Your task to perform on an android device: Set the phone to "Do not disturb". Image 0: 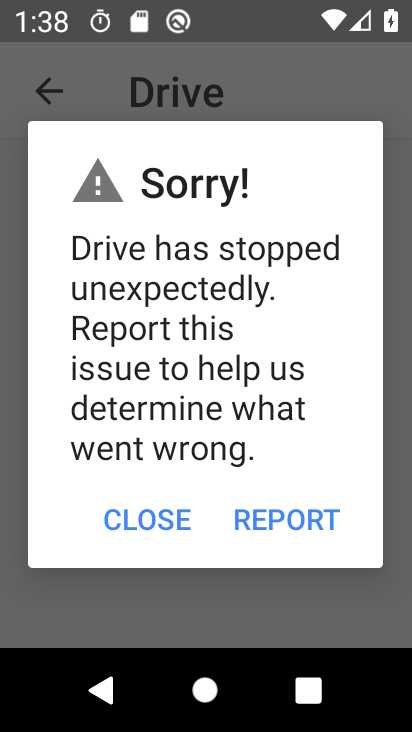
Step 0: press home button
Your task to perform on an android device: Set the phone to "Do not disturb". Image 1: 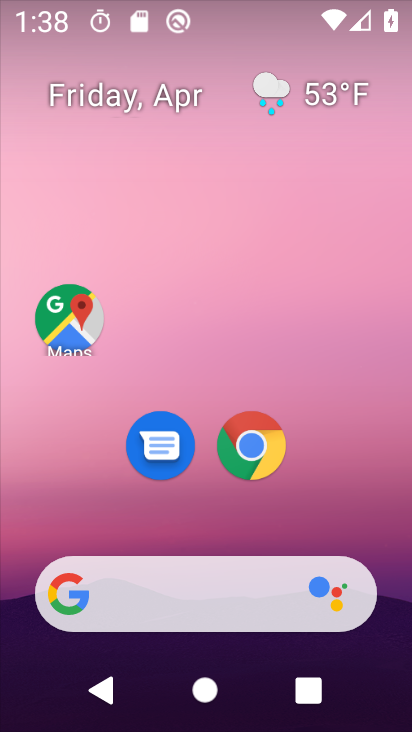
Step 1: drag from (351, 501) to (359, 172)
Your task to perform on an android device: Set the phone to "Do not disturb". Image 2: 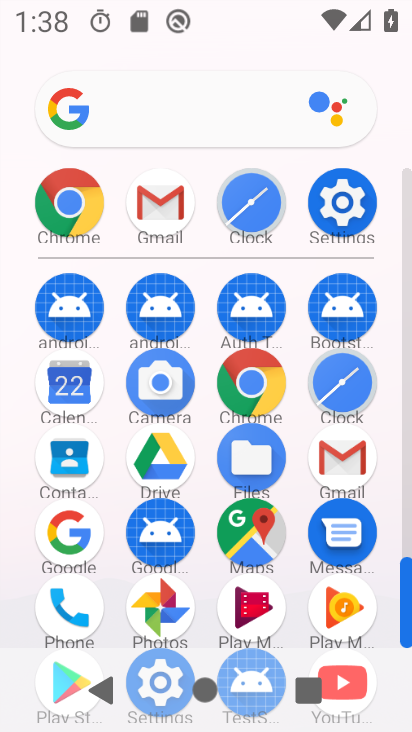
Step 2: click (335, 210)
Your task to perform on an android device: Set the phone to "Do not disturb". Image 3: 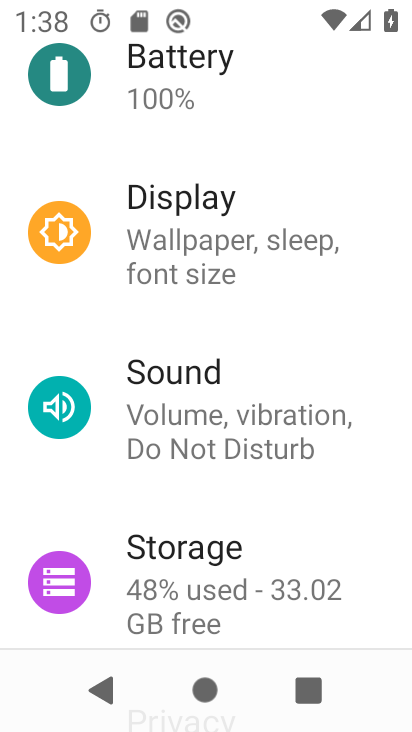
Step 3: drag from (363, 539) to (365, 384)
Your task to perform on an android device: Set the phone to "Do not disturb". Image 4: 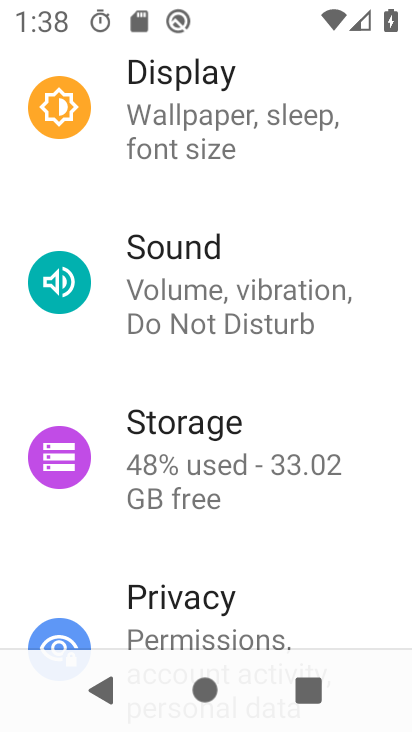
Step 4: drag from (361, 567) to (357, 411)
Your task to perform on an android device: Set the phone to "Do not disturb". Image 5: 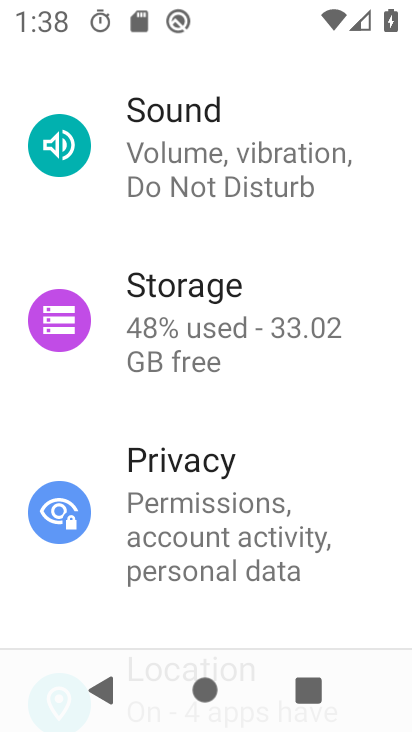
Step 5: drag from (359, 605) to (377, 425)
Your task to perform on an android device: Set the phone to "Do not disturb". Image 6: 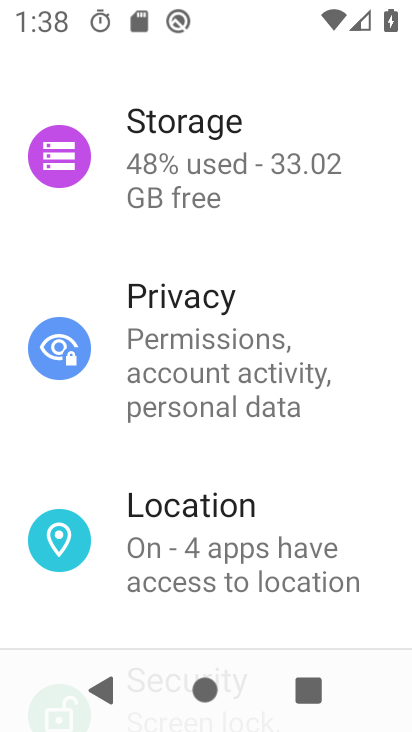
Step 6: drag from (372, 610) to (385, 430)
Your task to perform on an android device: Set the phone to "Do not disturb". Image 7: 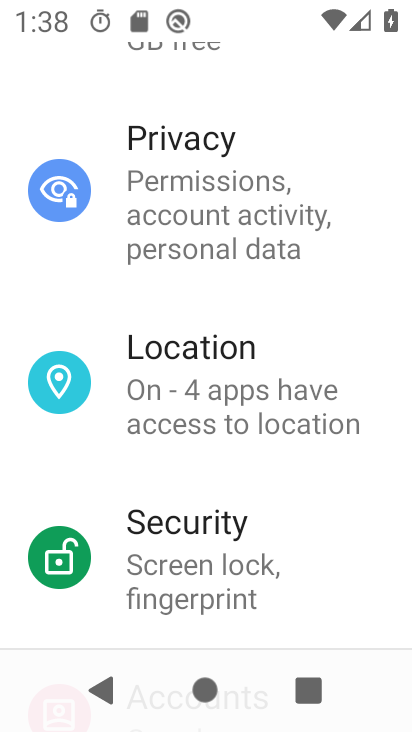
Step 7: drag from (347, 576) to (361, 430)
Your task to perform on an android device: Set the phone to "Do not disturb". Image 8: 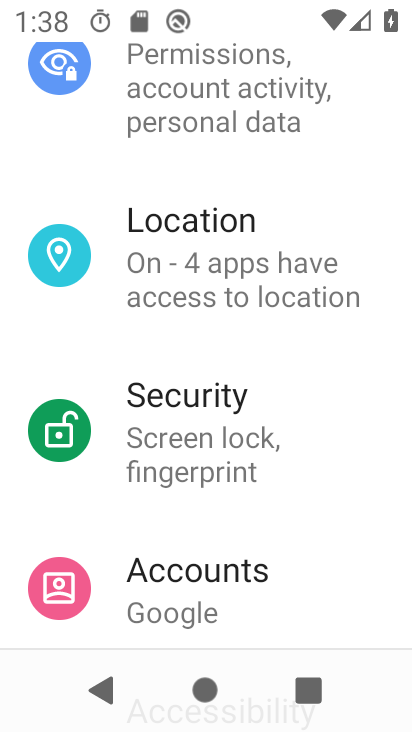
Step 8: drag from (344, 589) to (360, 365)
Your task to perform on an android device: Set the phone to "Do not disturb". Image 9: 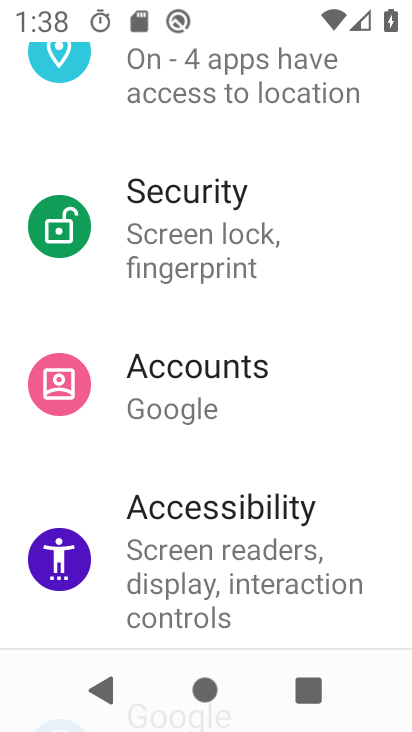
Step 9: drag from (365, 219) to (358, 374)
Your task to perform on an android device: Set the phone to "Do not disturb". Image 10: 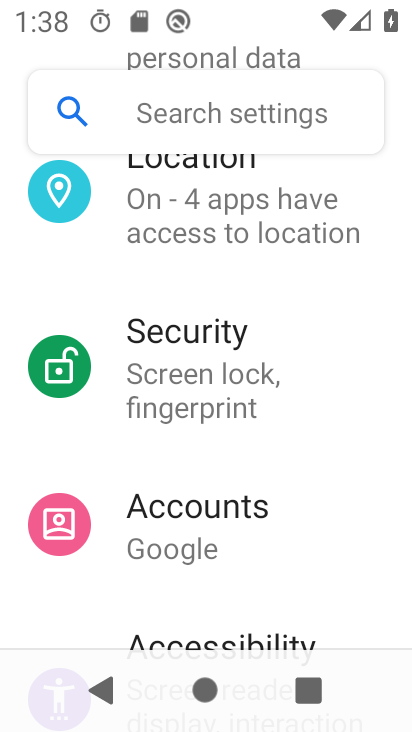
Step 10: drag from (352, 252) to (354, 421)
Your task to perform on an android device: Set the phone to "Do not disturb". Image 11: 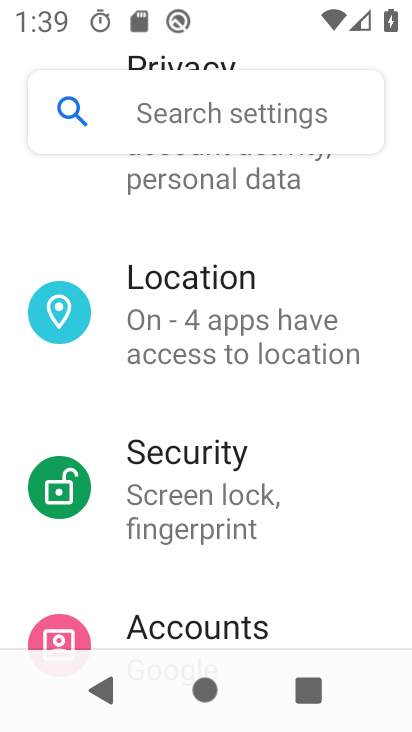
Step 11: drag from (382, 231) to (386, 386)
Your task to perform on an android device: Set the phone to "Do not disturb". Image 12: 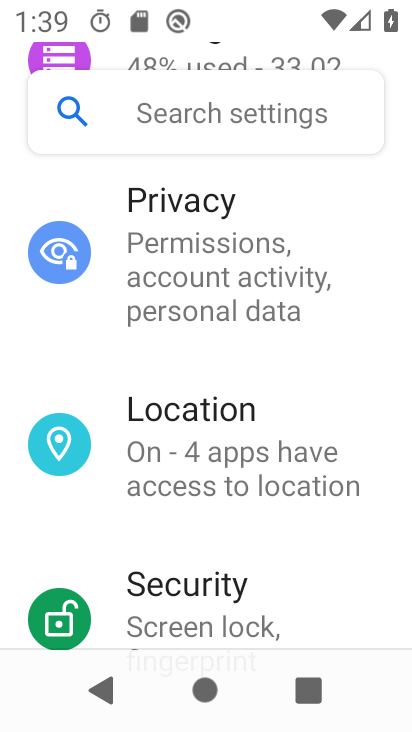
Step 12: drag from (364, 236) to (355, 397)
Your task to perform on an android device: Set the phone to "Do not disturb". Image 13: 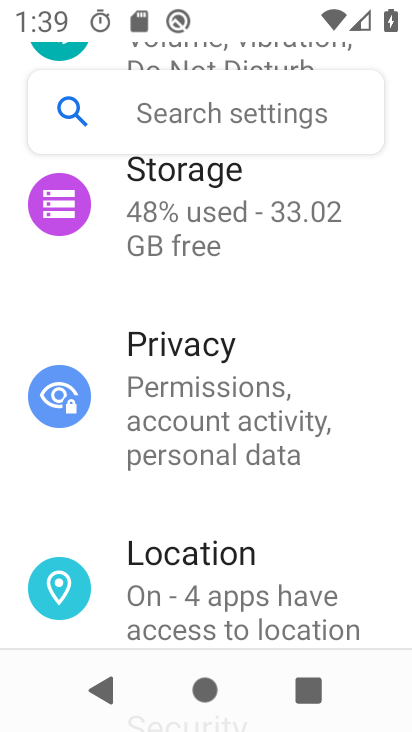
Step 13: drag from (361, 261) to (359, 389)
Your task to perform on an android device: Set the phone to "Do not disturb". Image 14: 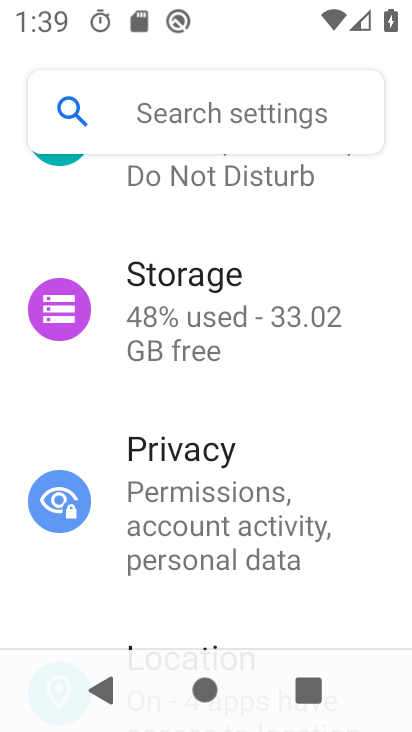
Step 14: drag from (371, 243) to (349, 420)
Your task to perform on an android device: Set the phone to "Do not disturb". Image 15: 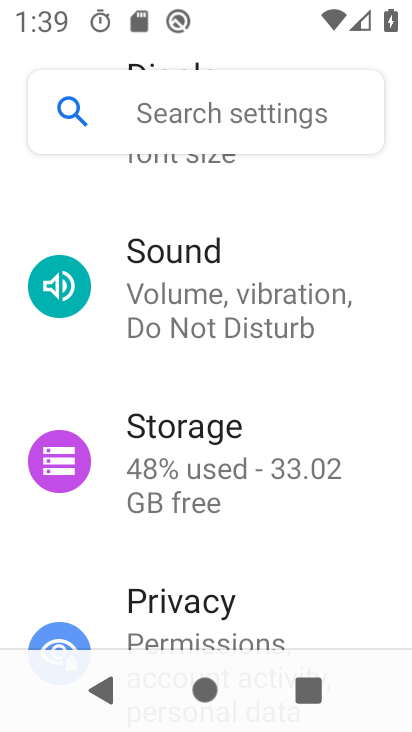
Step 15: click (274, 320)
Your task to perform on an android device: Set the phone to "Do not disturb". Image 16: 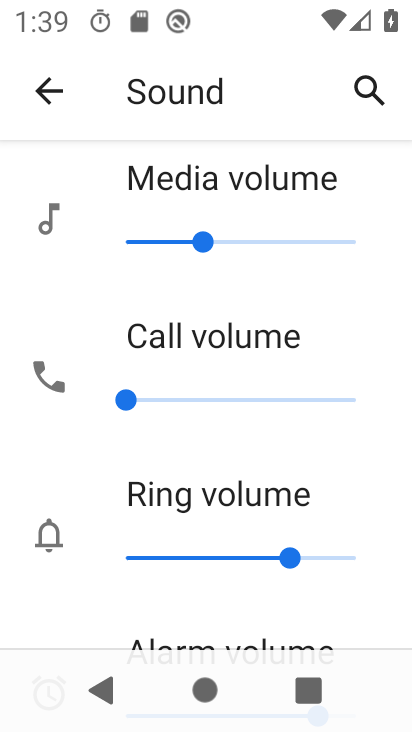
Step 16: drag from (345, 476) to (364, 315)
Your task to perform on an android device: Set the phone to "Do not disturb". Image 17: 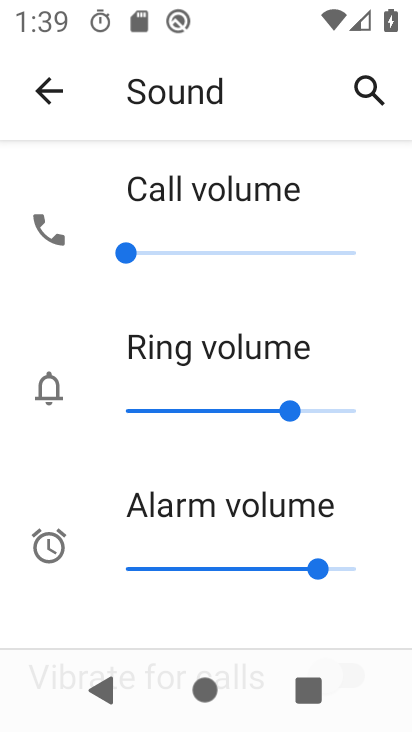
Step 17: drag from (358, 595) to (381, 351)
Your task to perform on an android device: Set the phone to "Do not disturb". Image 18: 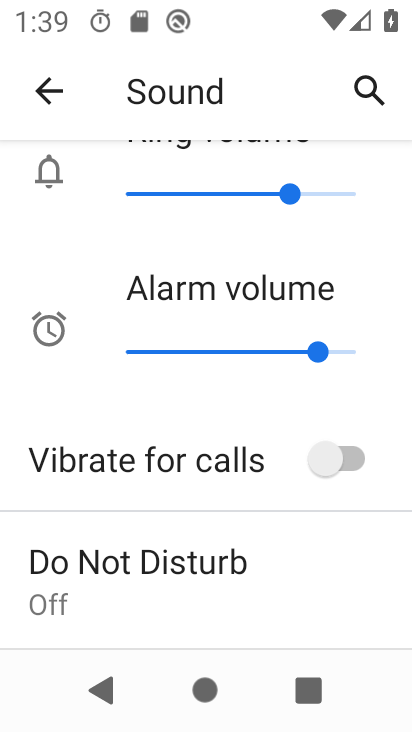
Step 18: drag from (341, 581) to (369, 386)
Your task to perform on an android device: Set the phone to "Do not disturb". Image 19: 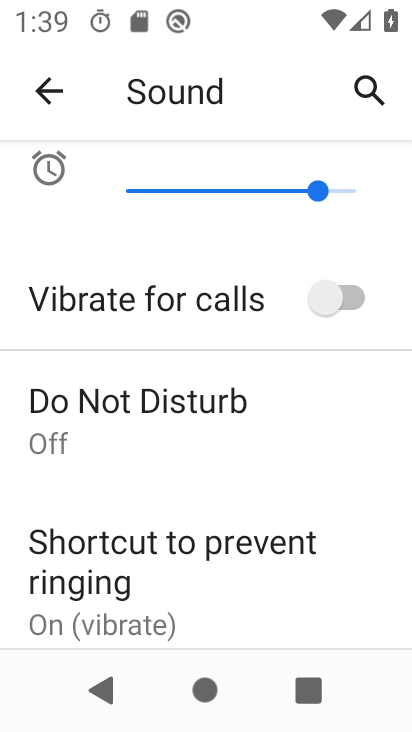
Step 19: click (217, 393)
Your task to perform on an android device: Set the phone to "Do not disturb". Image 20: 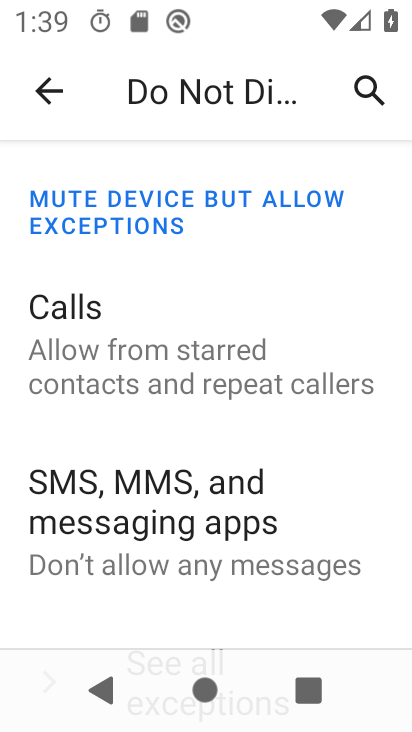
Step 20: drag from (313, 512) to (310, 319)
Your task to perform on an android device: Set the phone to "Do not disturb". Image 21: 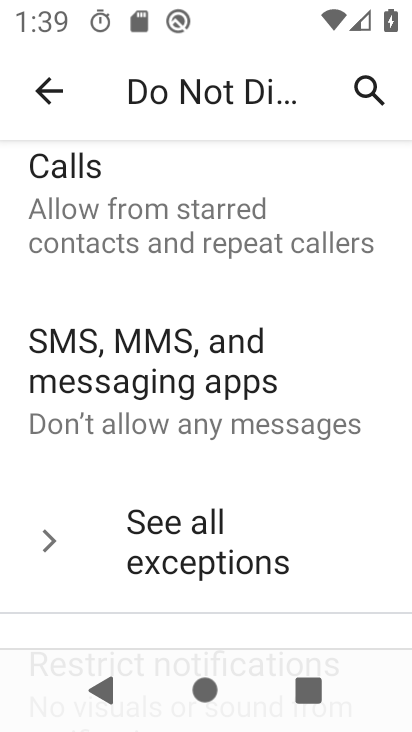
Step 21: drag from (312, 548) to (339, 355)
Your task to perform on an android device: Set the phone to "Do not disturb". Image 22: 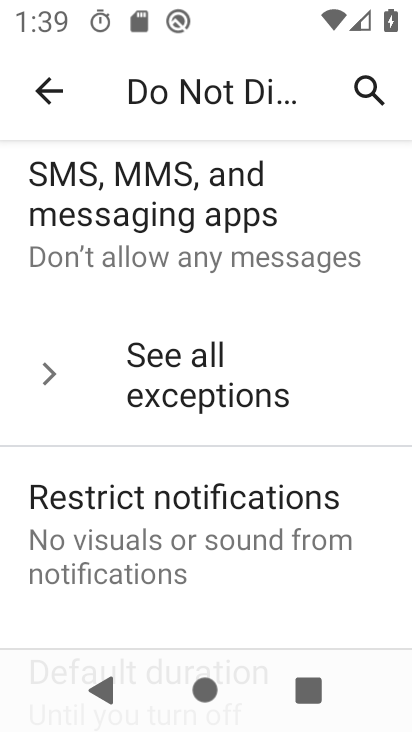
Step 22: drag from (340, 571) to (355, 312)
Your task to perform on an android device: Set the phone to "Do not disturb". Image 23: 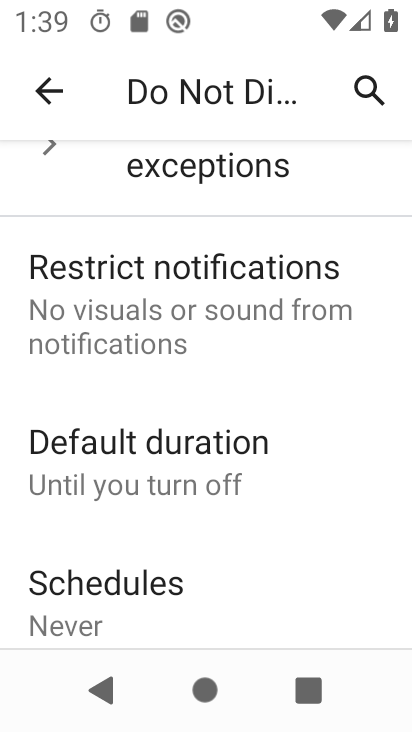
Step 23: drag from (303, 576) to (327, 332)
Your task to perform on an android device: Set the phone to "Do not disturb". Image 24: 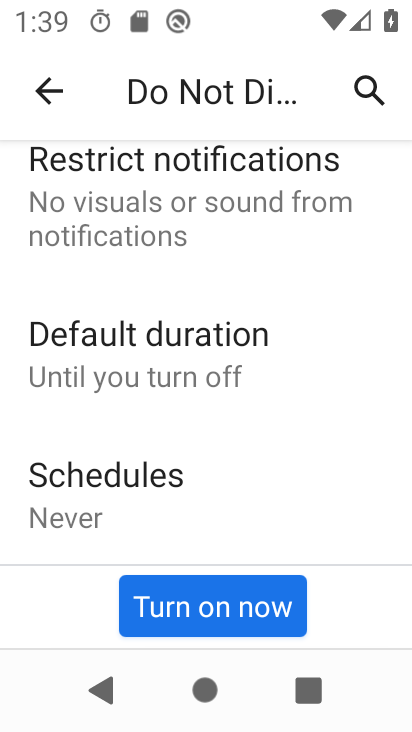
Step 24: click (257, 597)
Your task to perform on an android device: Set the phone to "Do not disturb". Image 25: 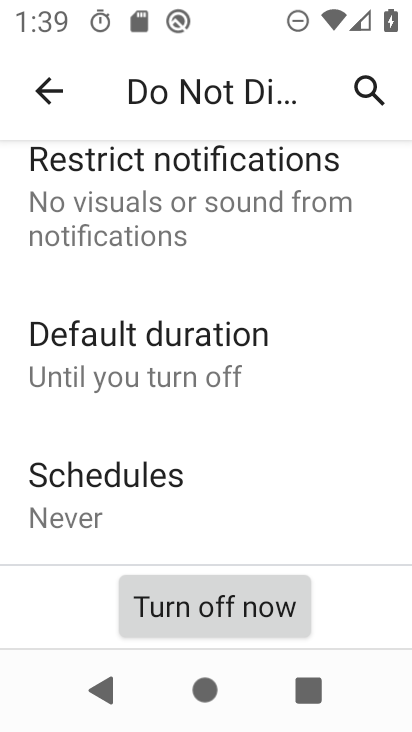
Step 25: task complete